Your task to perform on an android device: turn on showing notifications on the lock screen Image 0: 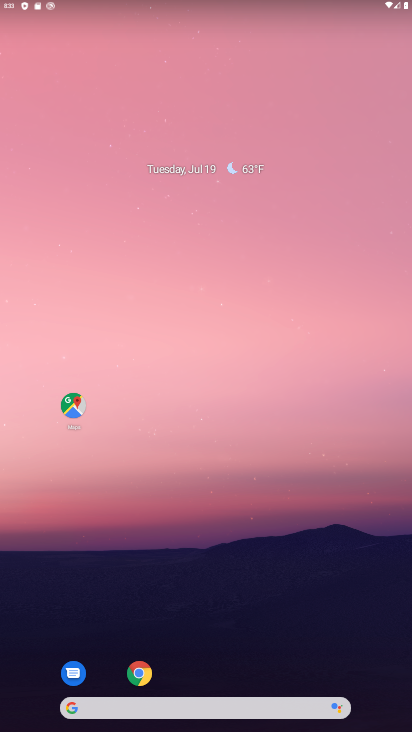
Step 0: drag from (239, 652) to (311, 165)
Your task to perform on an android device: turn on showing notifications on the lock screen Image 1: 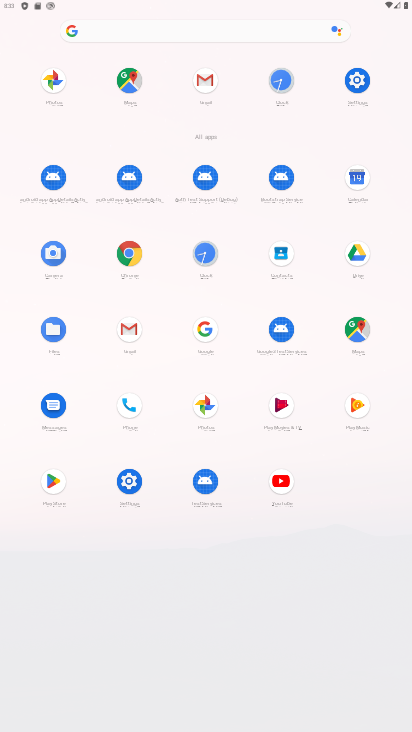
Step 1: click (127, 478)
Your task to perform on an android device: turn on showing notifications on the lock screen Image 2: 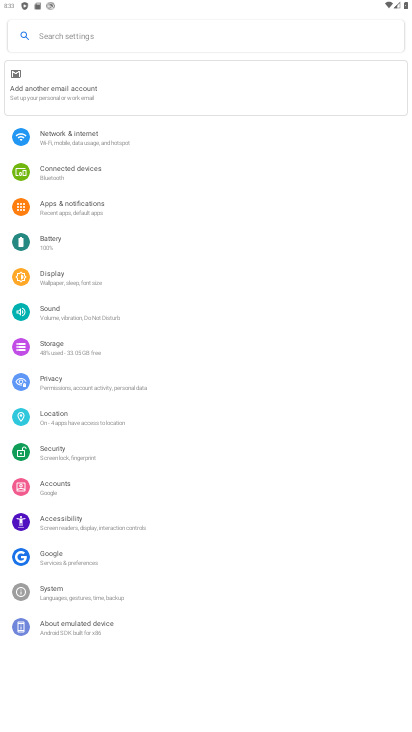
Step 2: click (123, 207)
Your task to perform on an android device: turn on showing notifications on the lock screen Image 3: 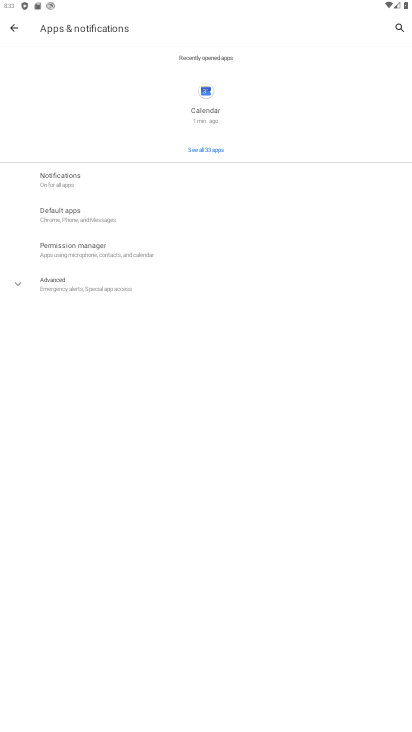
Step 3: click (129, 176)
Your task to perform on an android device: turn on showing notifications on the lock screen Image 4: 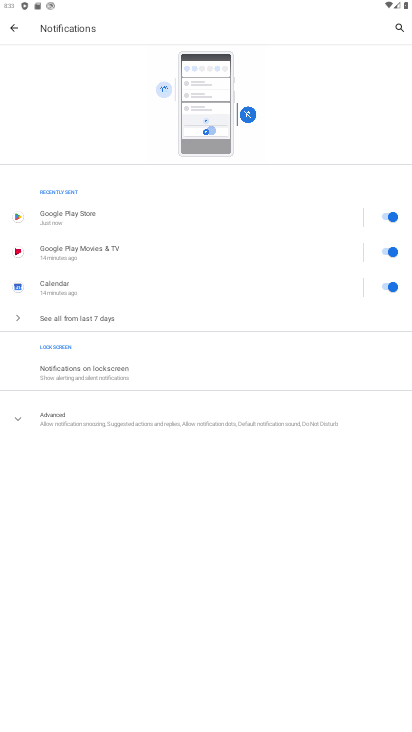
Step 4: click (152, 364)
Your task to perform on an android device: turn on showing notifications on the lock screen Image 5: 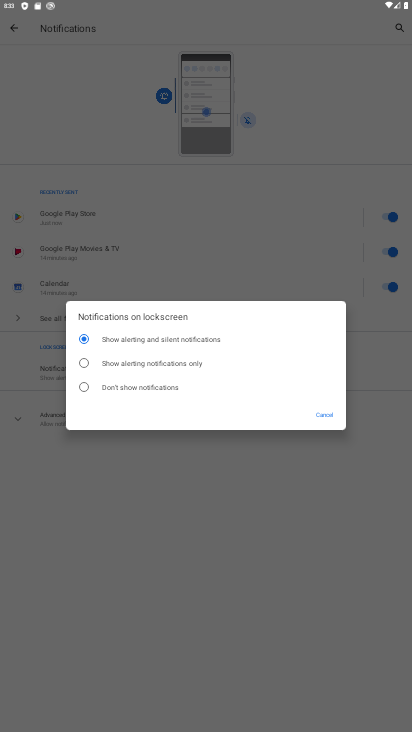
Step 5: task complete